Your task to perform on an android device: Go to Google Image 0: 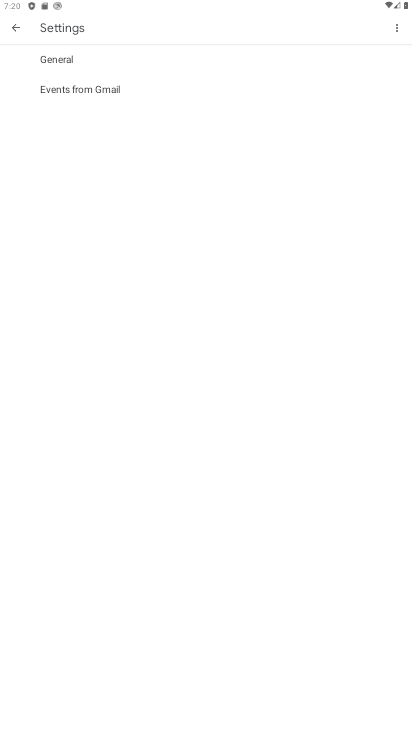
Step 0: press home button
Your task to perform on an android device: Go to Google Image 1: 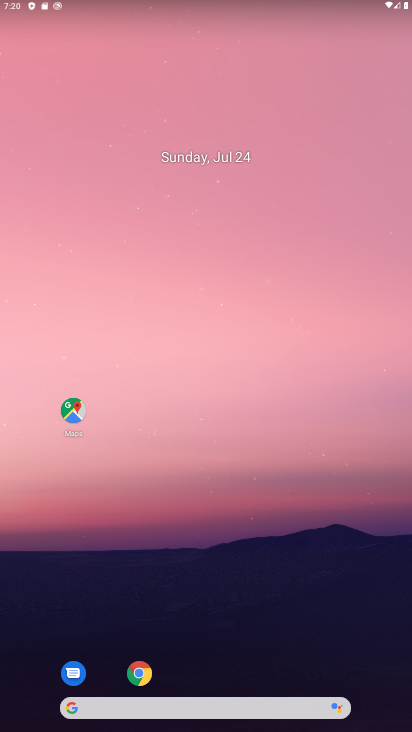
Step 1: drag from (189, 592) to (242, 164)
Your task to perform on an android device: Go to Google Image 2: 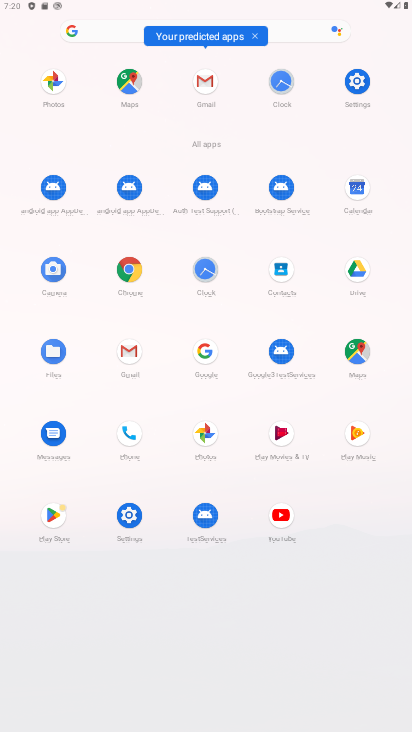
Step 2: click (211, 353)
Your task to perform on an android device: Go to Google Image 3: 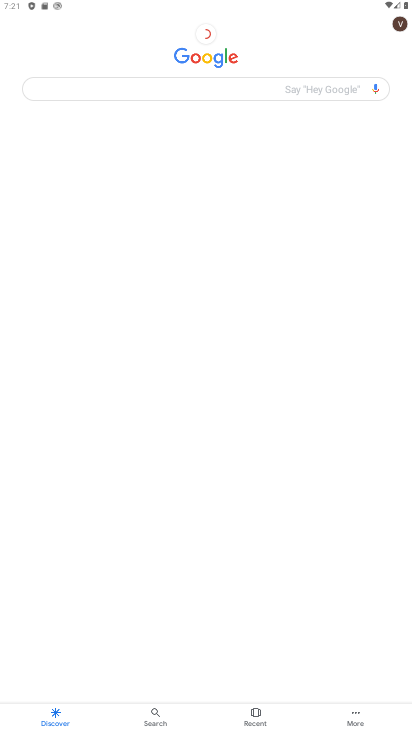
Step 3: task complete